Your task to perform on an android device: show emergency info Image 0: 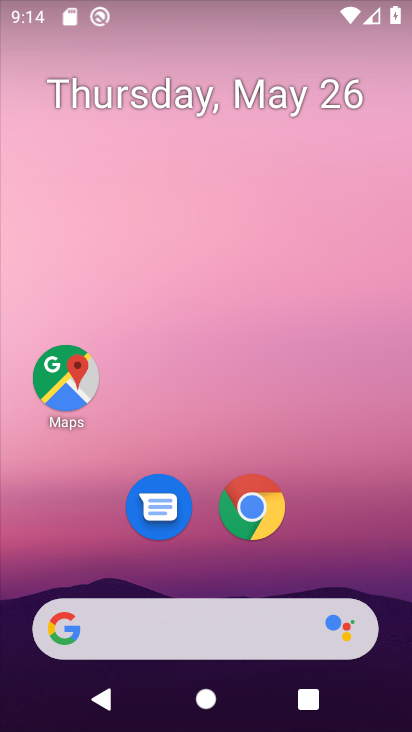
Step 0: drag from (388, 500) to (411, 193)
Your task to perform on an android device: show emergency info Image 1: 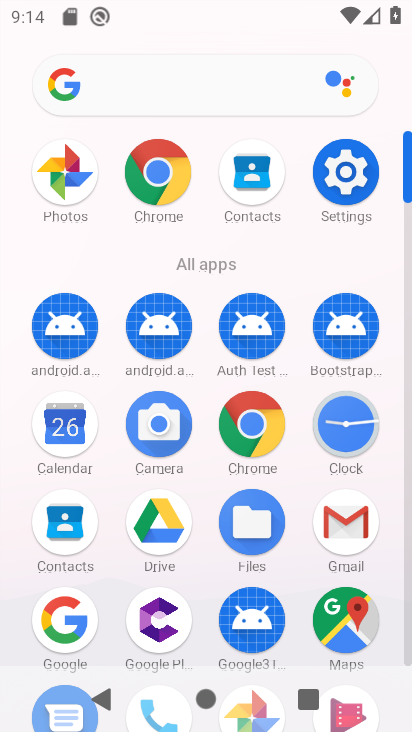
Step 1: click (357, 189)
Your task to perform on an android device: show emergency info Image 2: 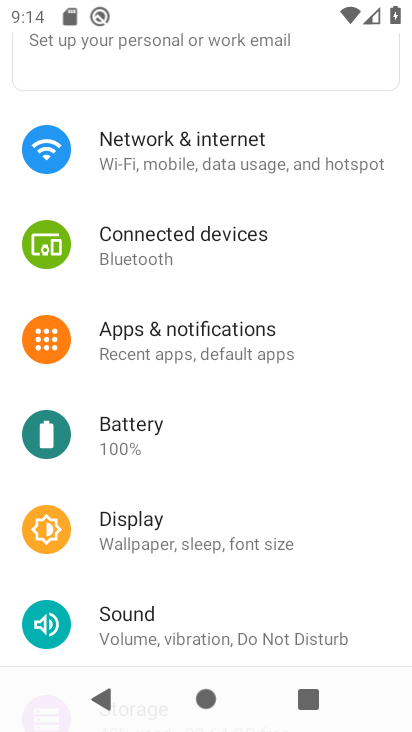
Step 2: drag from (355, 298) to (353, 193)
Your task to perform on an android device: show emergency info Image 3: 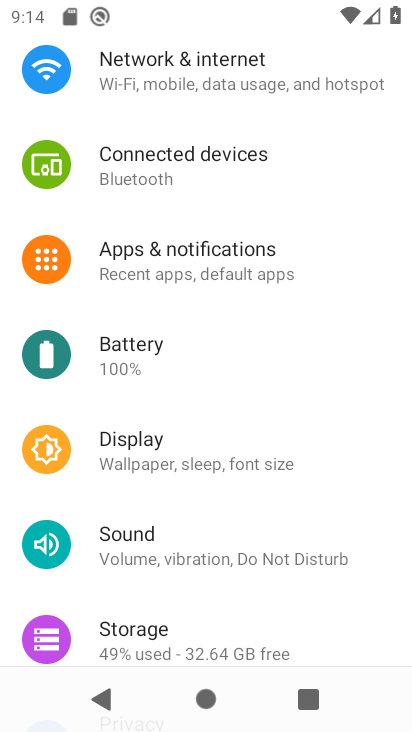
Step 3: drag from (358, 293) to (360, 165)
Your task to perform on an android device: show emergency info Image 4: 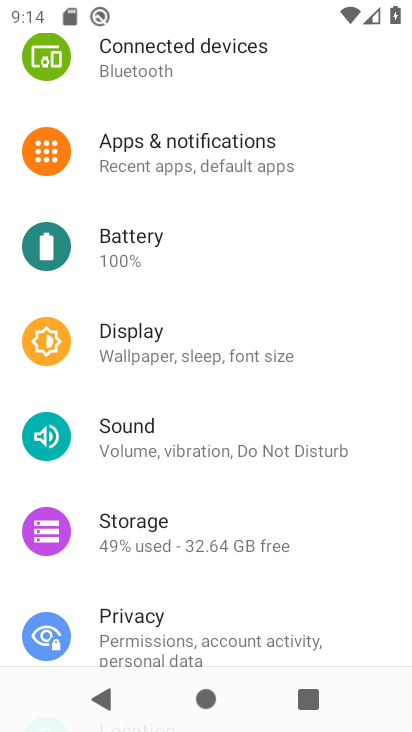
Step 4: drag from (357, 291) to (363, 204)
Your task to perform on an android device: show emergency info Image 5: 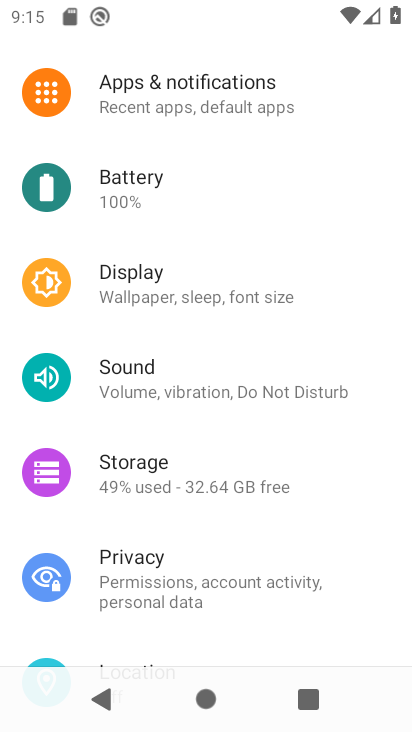
Step 5: drag from (351, 298) to (353, 219)
Your task to perform on an android device: show emergency info Image 6: 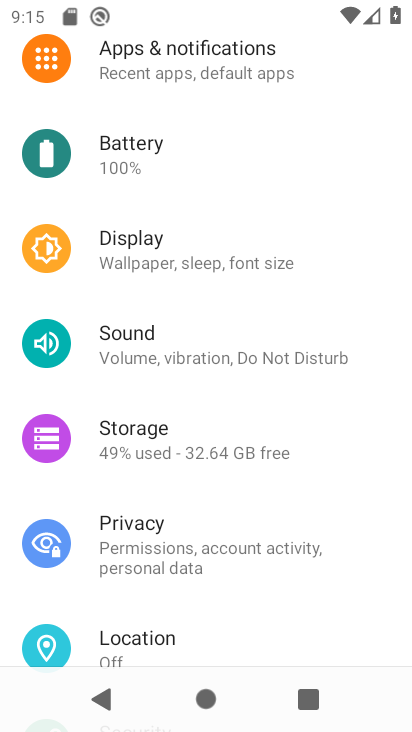
Step 6: drag from (346, 390) to (351, 266)
Your task to perform on an android device: show emergency info Image 7: 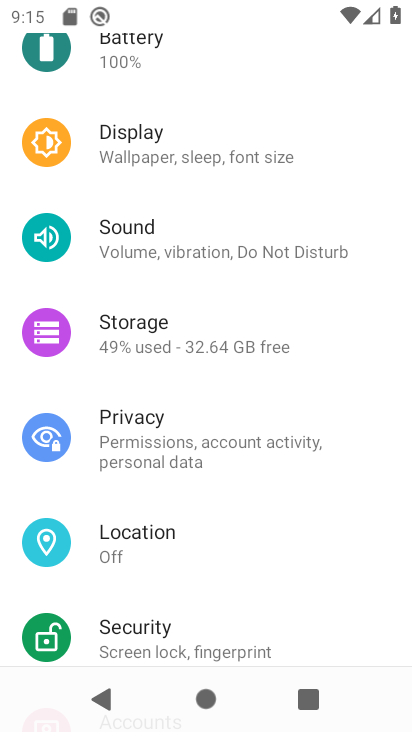
Step 7: drag from (337, 321) to (338, 231)
Your task to perform on an android device: show emergency info Image 8: 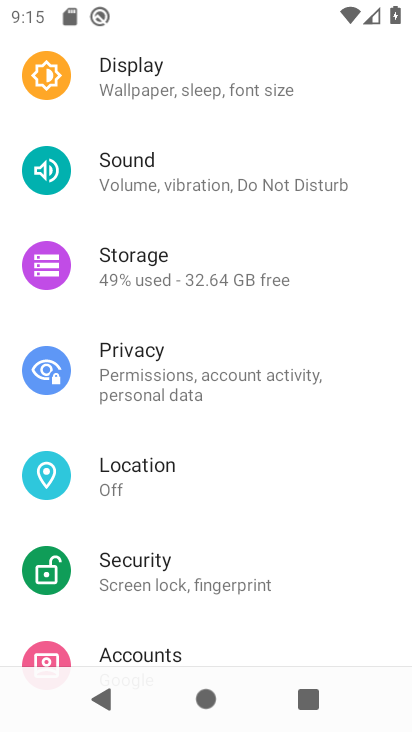
Step 8: drag from (343, 361) to (353, 235)
Your task to perform on an android device: show emergency info Image 9: 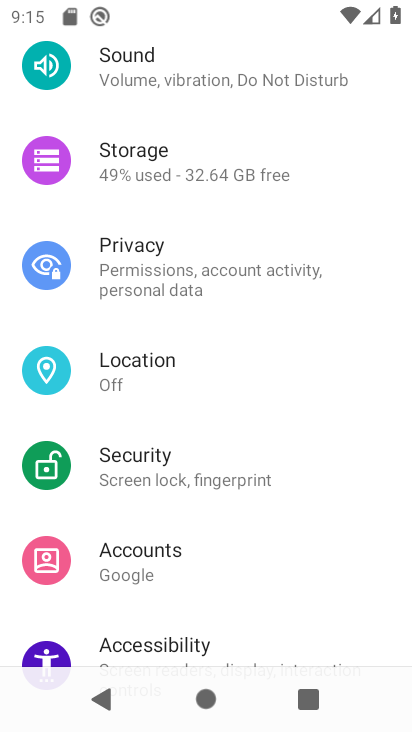
Step 9: drag from (346, 428) to (352, 282)
Your task to perform on an android device: show emergency info Image 10: 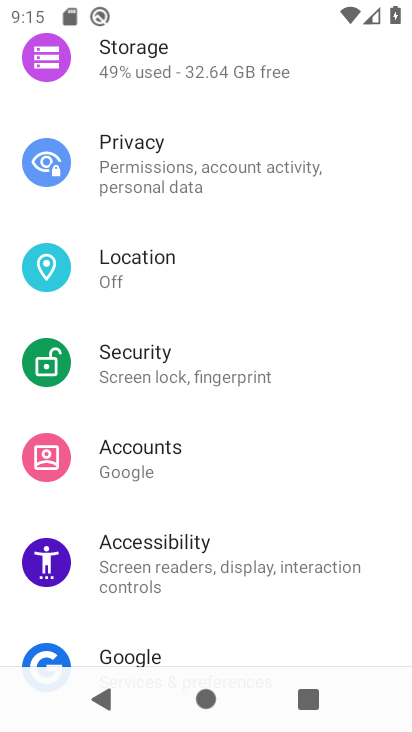
Step 10: drag from (349, 424) to (353, 276)
Your task to perform on an android device: show emergency info Image 11: 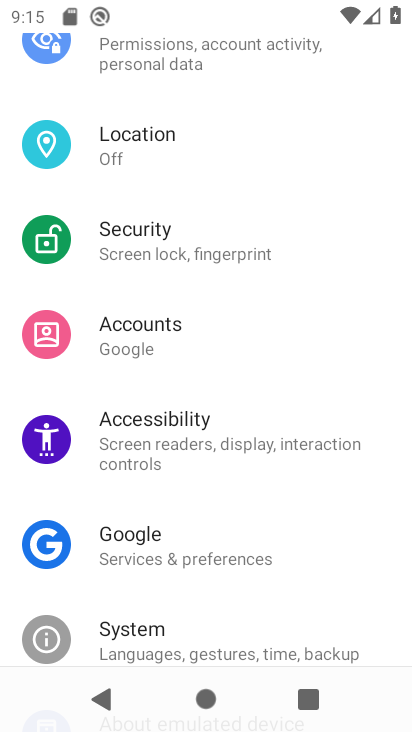
Step 11: drag from (340, 374) to (347, 249)
Your task to perform on an android device: show emergency info Image 12: 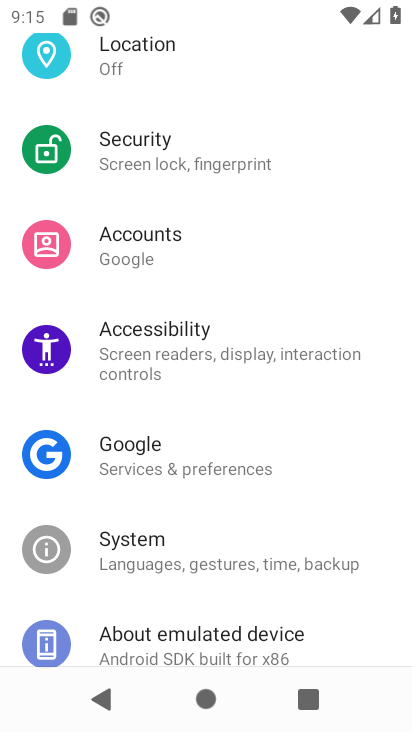
Step 12: drag from (347, 443) to (350, 295)
Your task to perform on an android device: show emergency info Image 13: 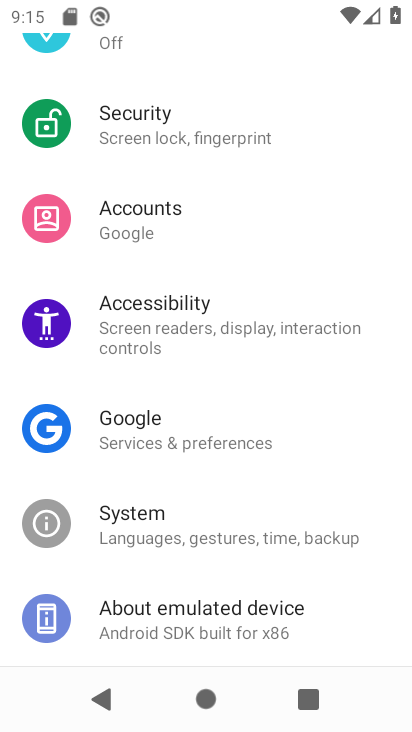
Step 13: drag from (342, 472) to (354, 334)
Your task to perform on an android device: show emergency info Image 14: 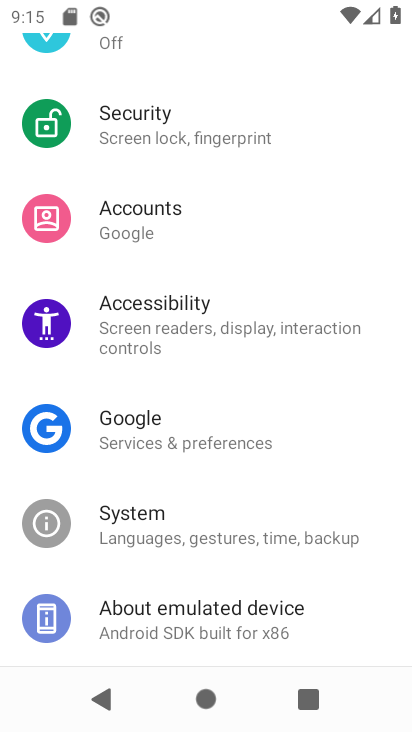
Step 14: click (238, 630)
Your task to perform on an android device: show emergency info Image 15: 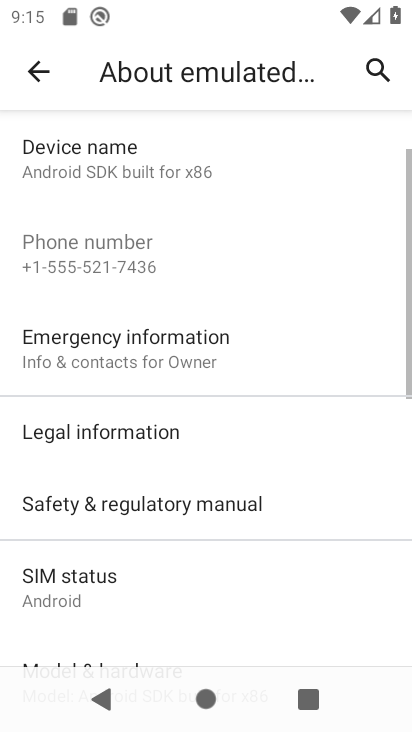
Step 15: drag from (328, 572) to (348, 447)
Your task to perform on an android device: show emergency info Image 16: 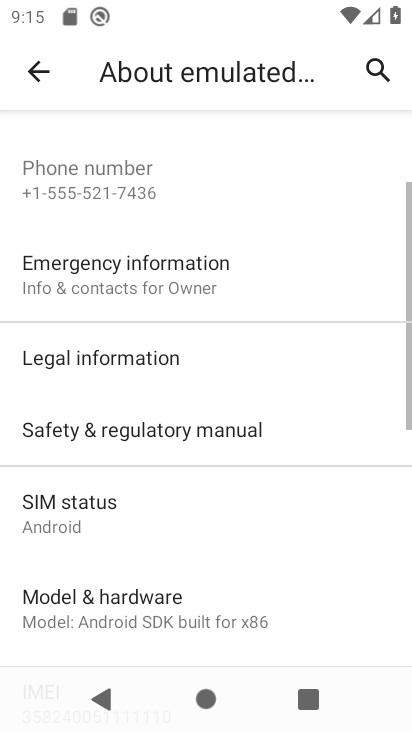
Step 16: drag from (343, 576) to (357, 443)
Your task to perform on an android device: show emergency info Image 17: 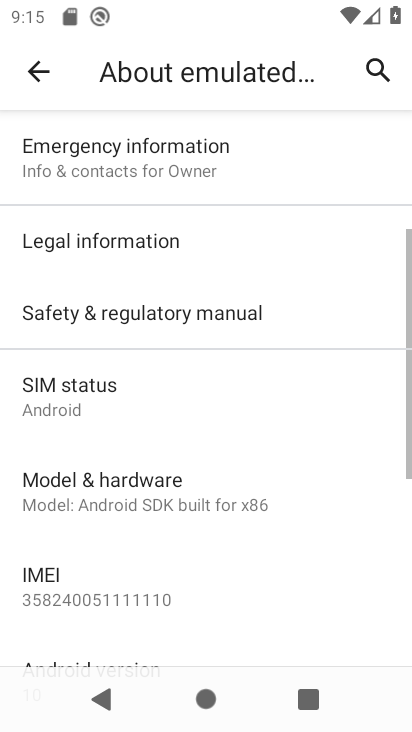
Step 17: drag from (349, 569) to (360, 455)
Your task to perform on an android device: show emergency info Image 18: 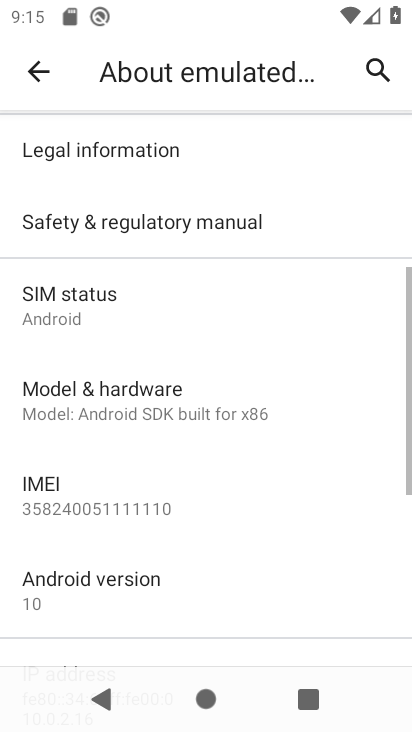
Step 18: drag from (349, 568) to (362, 467)
Your task to perform on an android device: show emergency info Image 19: 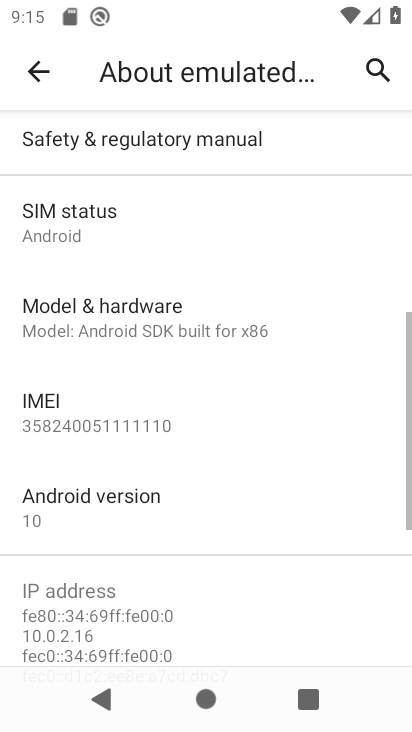
Step 19: drag from (361, 562) to (353, 434)
Your task to perform on an android device: show emergency info Image 20: 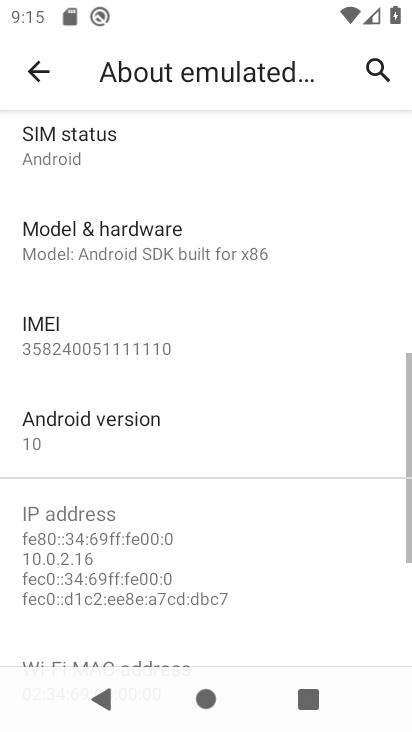
Step 20: drag from (328, 629) to (346, 481)
Your task to perform on an android device: show emergency info Image 21: 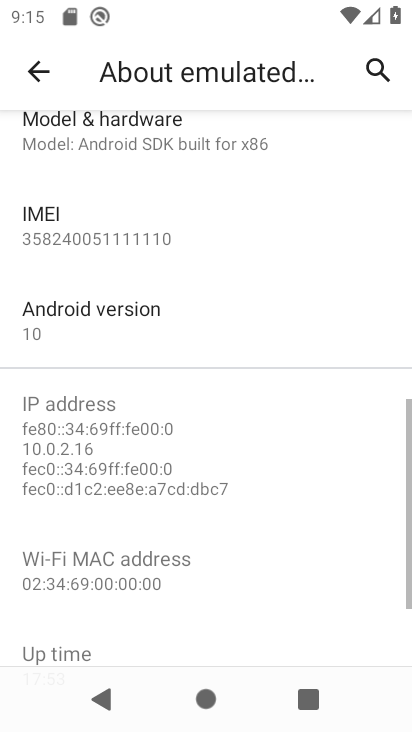
Step 21: drag from (337, 573) to (332, 419)
Your task to perform on an android device: show emergency info Image 22: 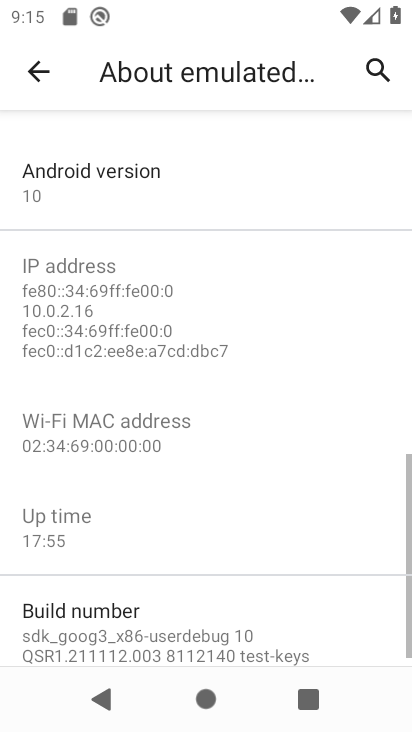
Step 22: drag from (353, 271) to (350, 435)
Your task to perform on an android device: show emergency info Image 23: 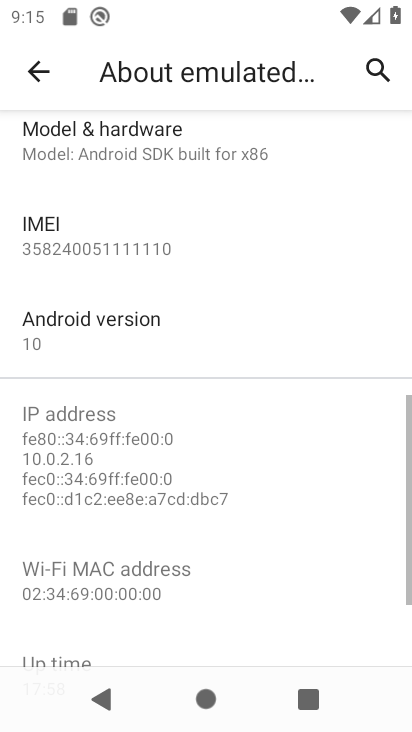
Step 23: drag from (366, 278) to (367, 415)
Your task to perform on an android device: show emergency info Image 24: 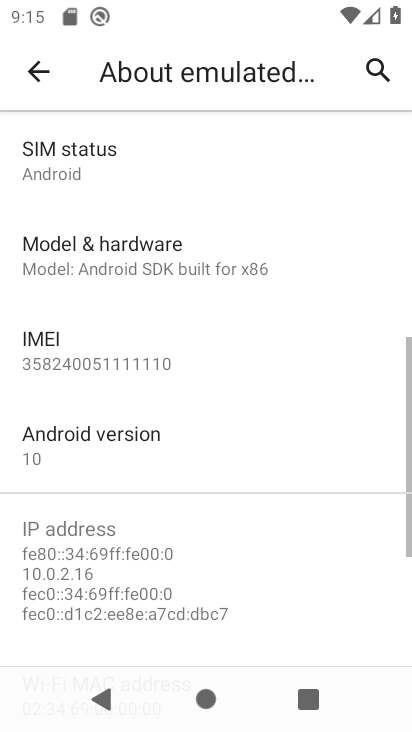
Step 24: drag from (366, 238) to (338, 404)
Your task to perform on an android device: show emergency info Image 25: 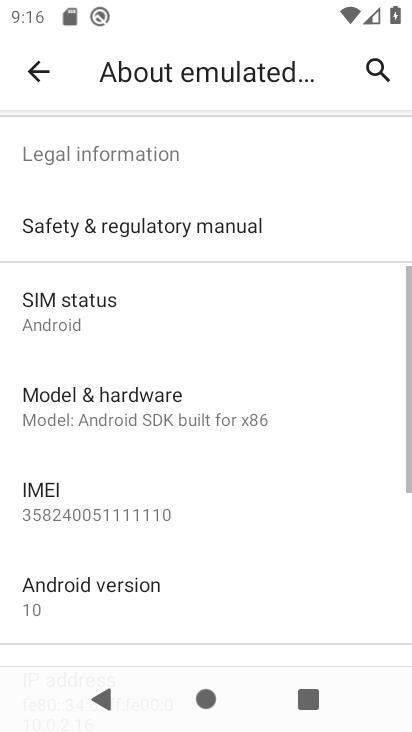
Step 25: drag from (331, 211) to (333, 358)
Your task to perform on an android device: show emergency info Image 26: 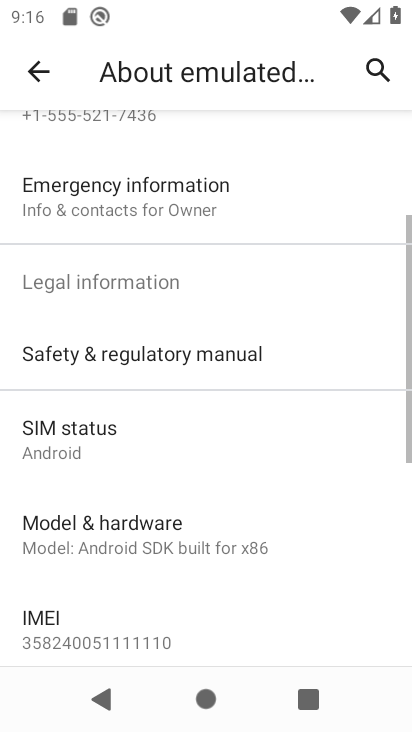
Step 26: drag from (350, 214) to (351, 470)
Your task to perform on an android device: show emergency info Image 27: 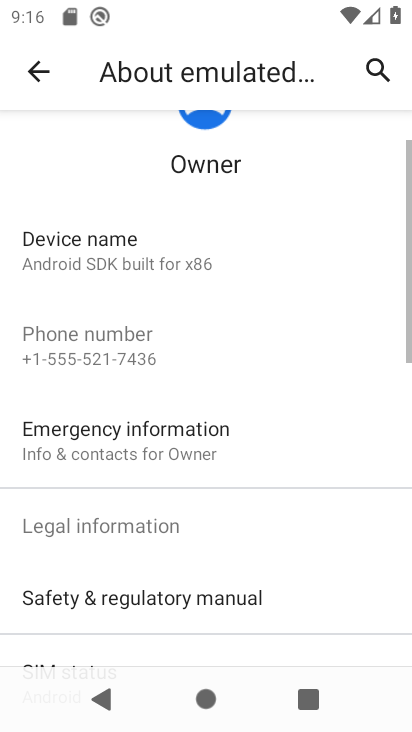
Step 27: click (157, 462)
Your task to perform on an android device: show emergency info Image 28: 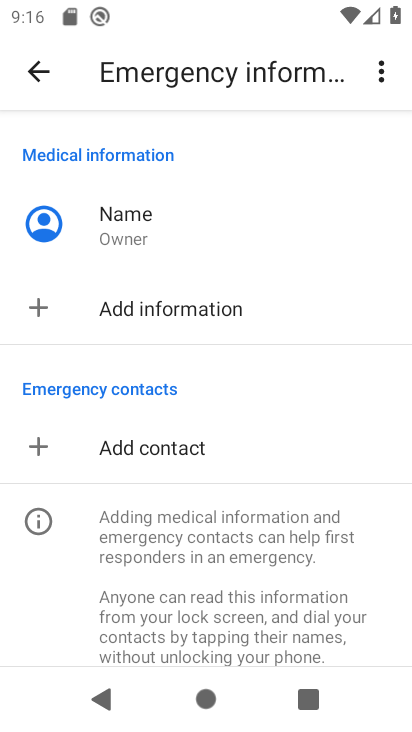
Step 28: task complete